Your task to perform on an android device: turn off location Image 0: 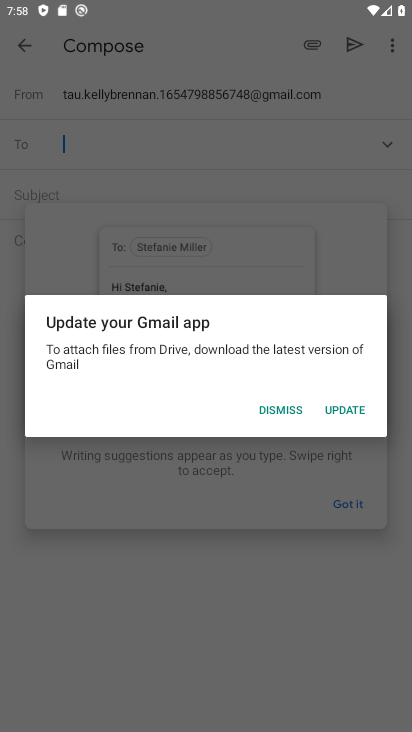
Step 0: press home button
Your task to perform on an android device: turn off location Image 1: 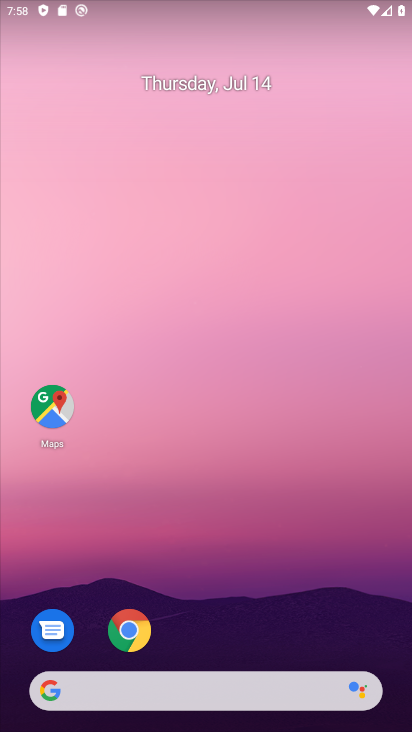
Step 1: drag from (257, 611) to (323, 2)
Your task to perform on an android device: turn off location Image 2: 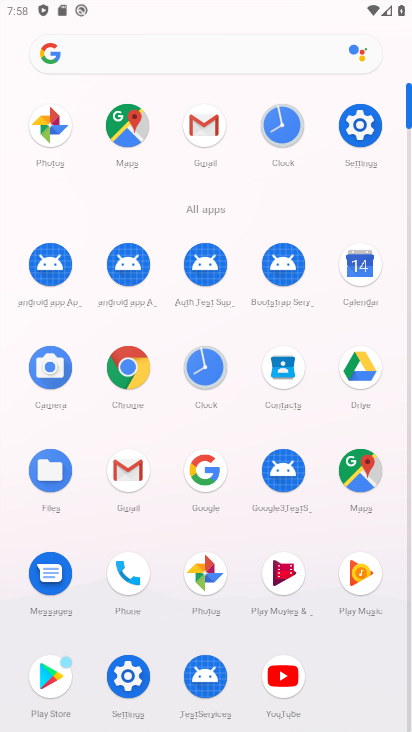
Step 2: click (359, 118)
Your task to perform on an android device: turn off location Image 3: 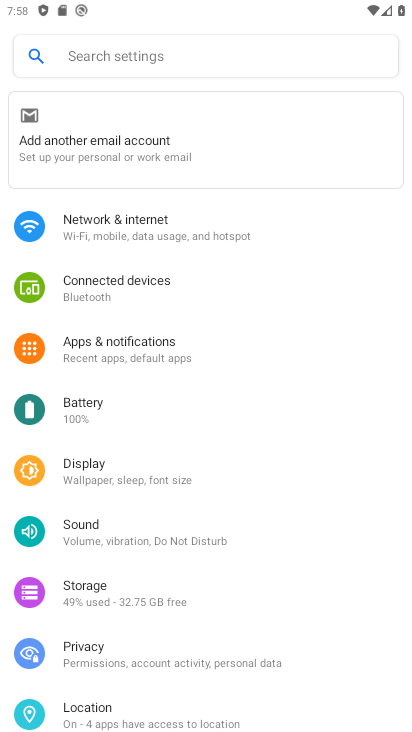
Step 3: click (92, 703)
Your task to perform on an android device: turn off location Image 4: 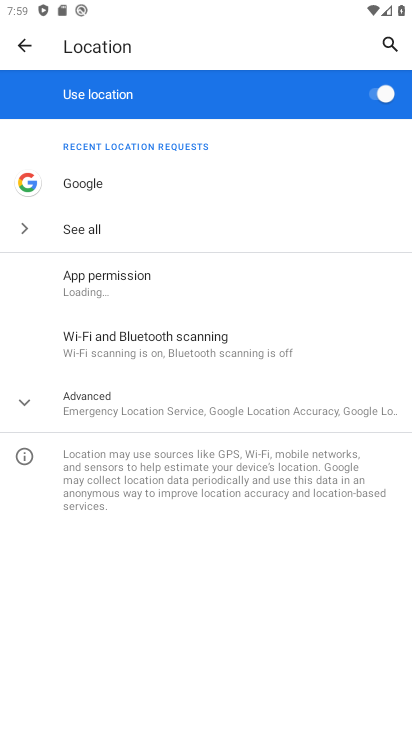
Step 4: click (374, 89)
Your task to perform on an android device: turn off location Image 5: 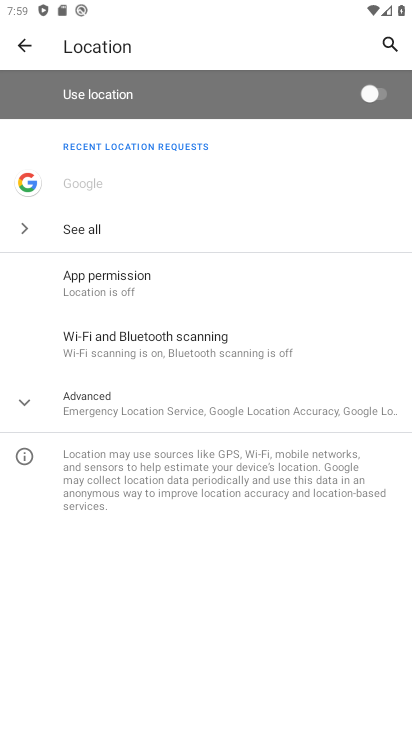
Step 5: task complete